Your task to perform on an android device: Open accessibility settings Image 0: 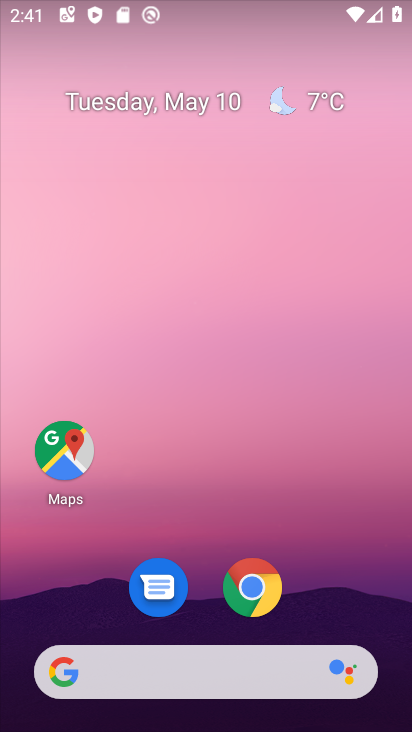
Step 0: drag from (340, 631) to (281, 63)
Your task to perform on an android device: Open accessibility settings Image 1: 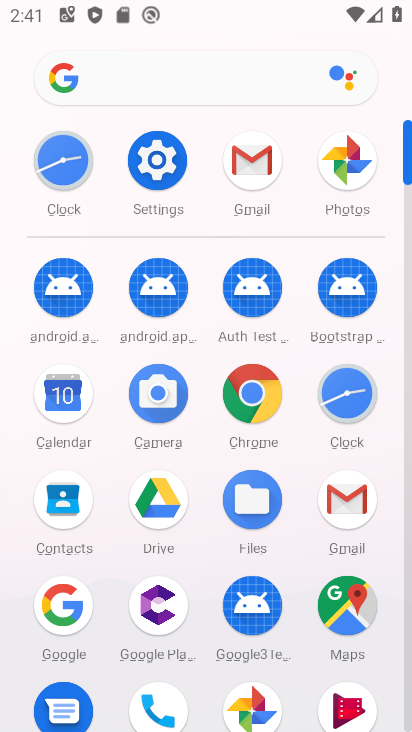
Step 1: click (165, 161)
Your task to perform on an android device: Open accessibility settings Image 2: 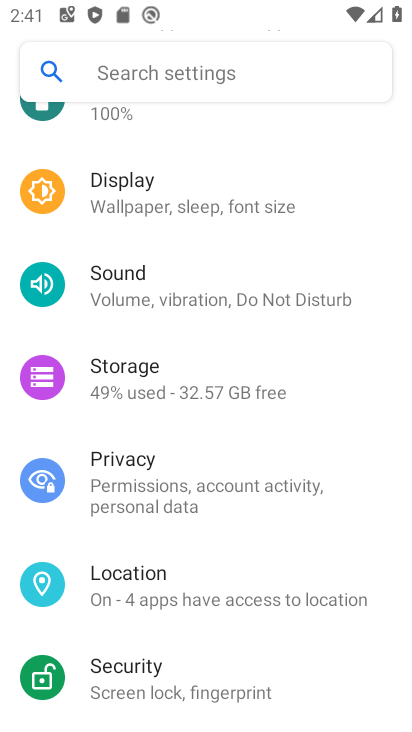
Step 2: drag from (212, 655) to (186, 199)
Your task to perform on an android device: Open accessibility settings Image 3: 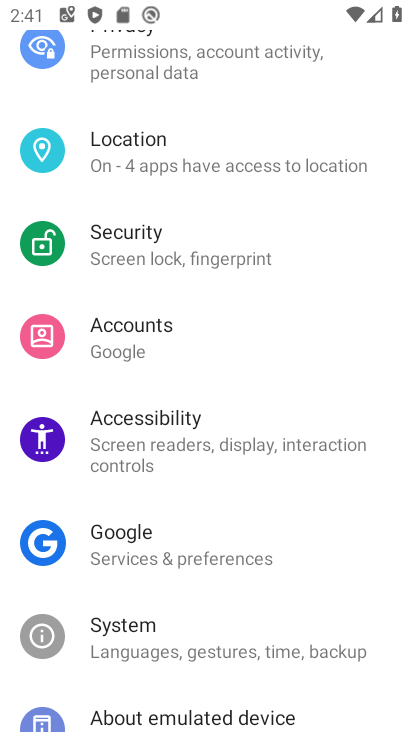
Step 3: click (161, 444)
Your task to perform on an android device: Open accessibility settings Image 4: 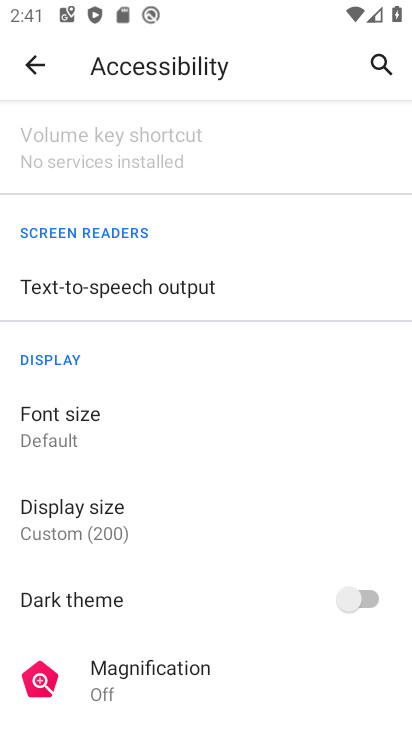
Step 4: task complete